Your task to perform on an android device: clear history in the chrome app Image 0: 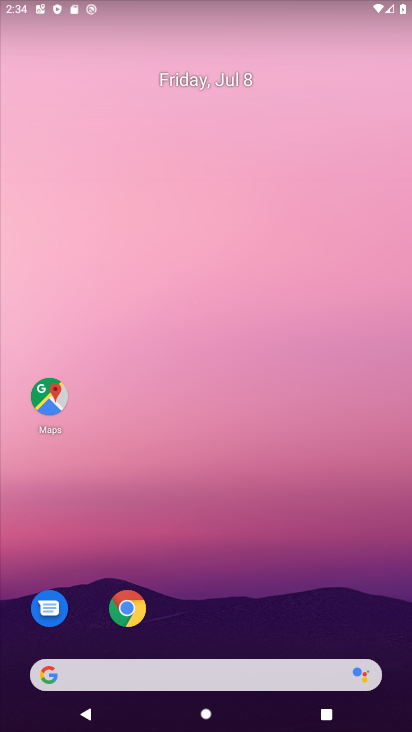
Step 0: drag from (279, 644) to (243, 42)
Your task to perform on an android device: clear history in the chrome app Image 1: 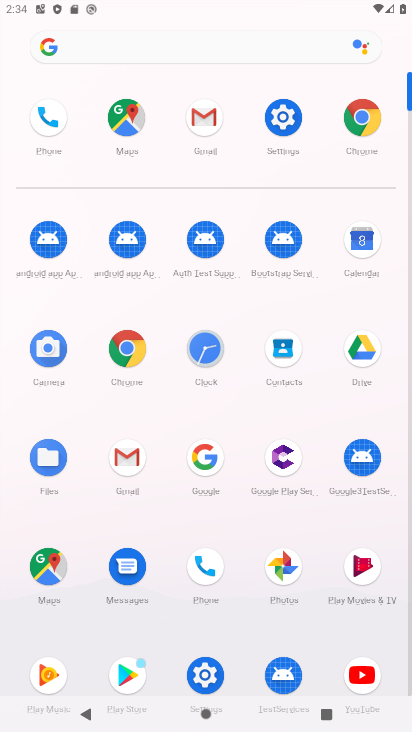
Step 1: click (132, 357)
Your task to perform on an android device: clear history in the chrome app Image 2: 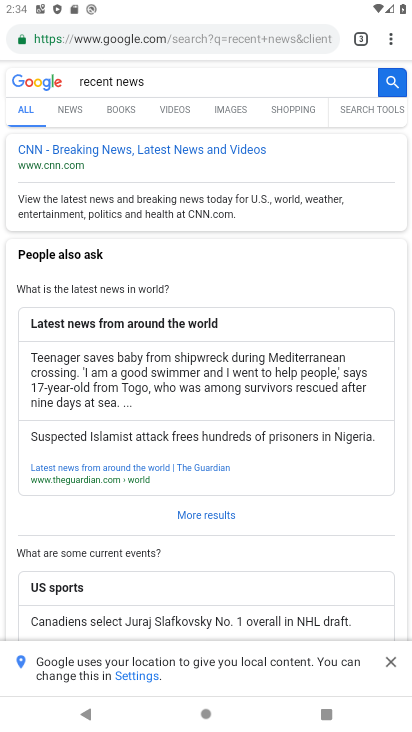
Step 2: drag from (391, 36) to (256, 438)
Your task to perform on an android device: clear history in the chrome app Image 3: 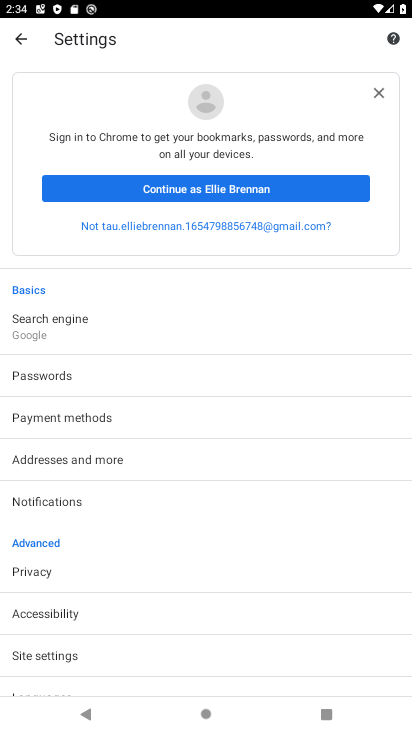
Step 3: click (69, 581)
Your task to perform on an android device: clear history in the chrome app Image 4: 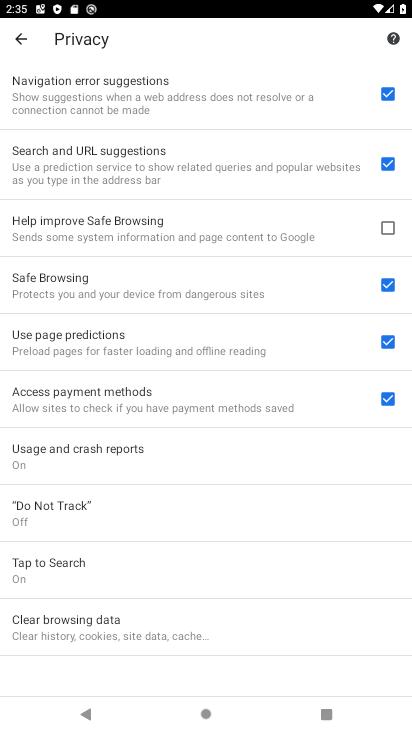
Step 4: click (167, 638)
Your task to perform on an android device: clear history in the chrome app Image 5: 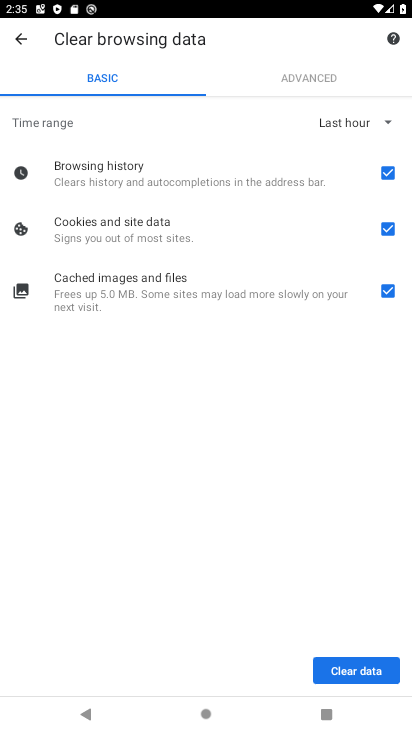
Step 5: click (368, 670)
Your task to perform on an android device: clear history in the chrome app Image 6: 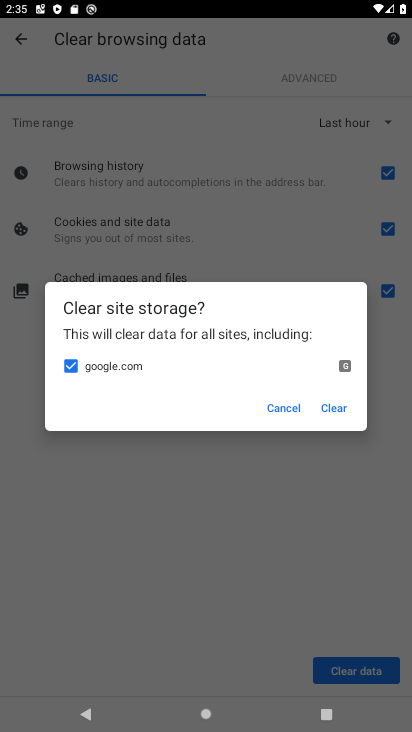
Step 6: click (329, 403)
Your task to perform on an android device: clear history in the chrome app Image 7: 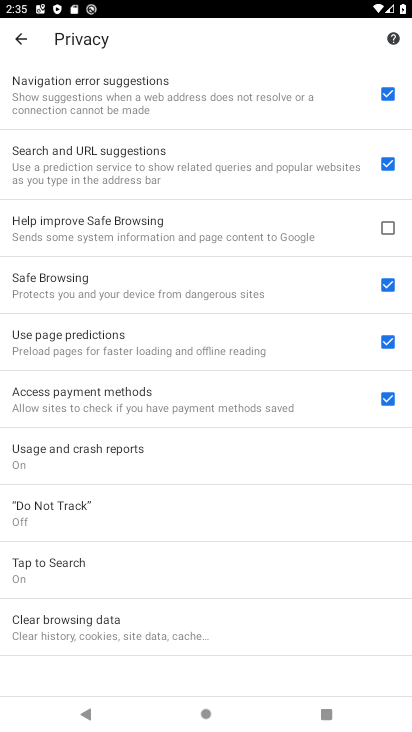
Step 7: task complete